Your task to perform on an android device: Go to Amazon Image 0: 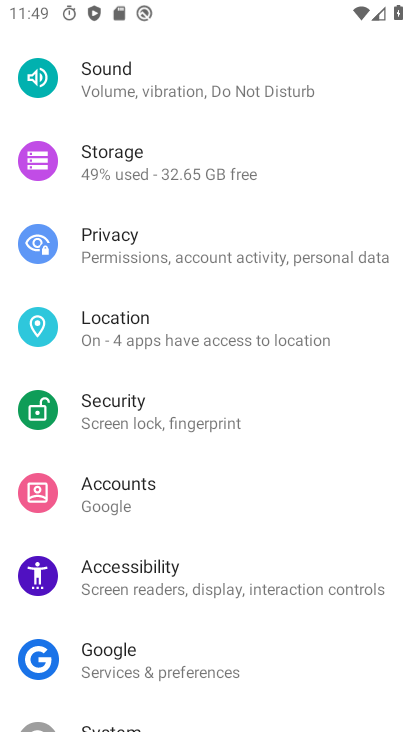
Step 0: press home button
Your task to perform on an android device: Go to Amazon Image 1: 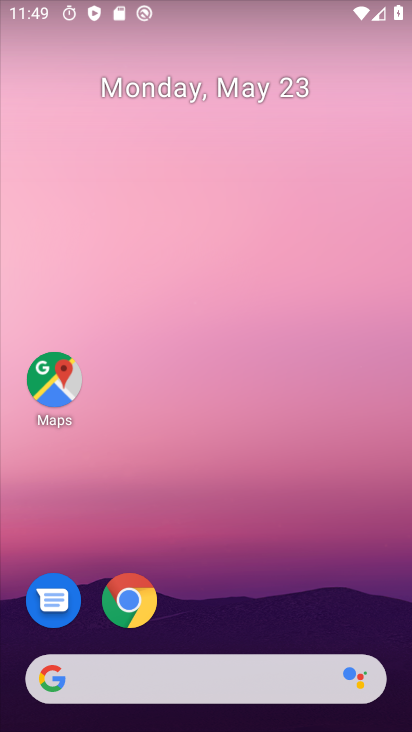
Step 1: click (134, 600)
Your task to perform on an android device: Go to Amazon Image 2: 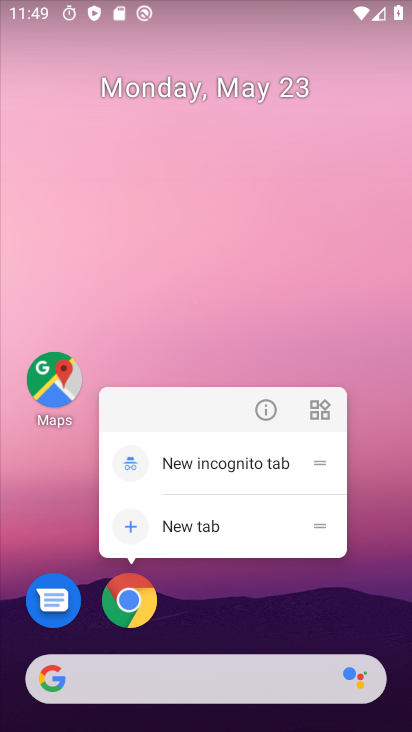
Step 2: click (127, 606)
Your task to perform on an android device: Go to Amazon Image 3: 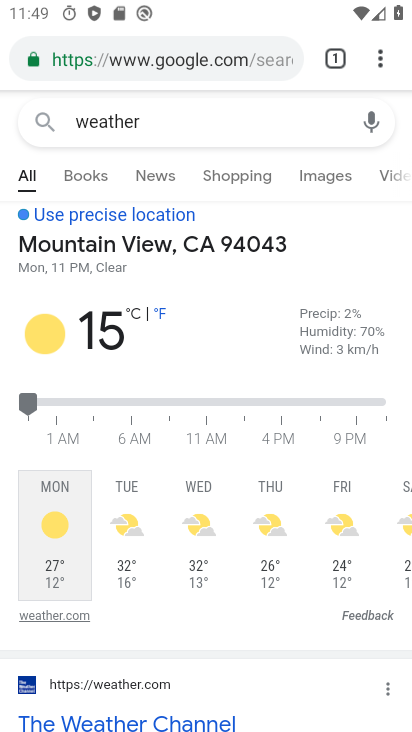
Step 3: click (222, 61)
Your task to perform on an android device: Go to Amazon Image 4: 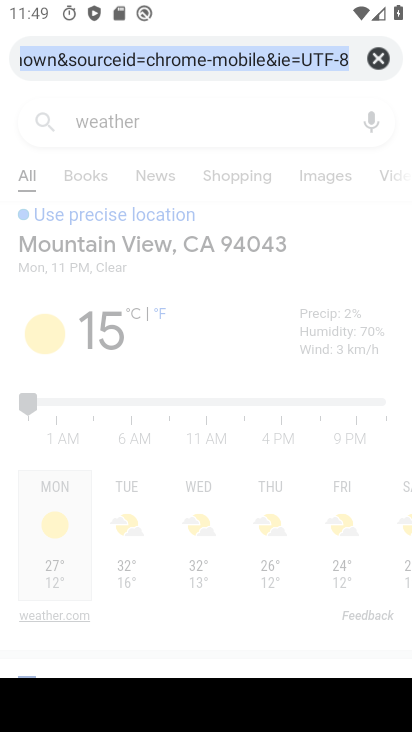
Step 4: type "amazon"
Your task to perform on an android device: Go to Amazon Image 5: 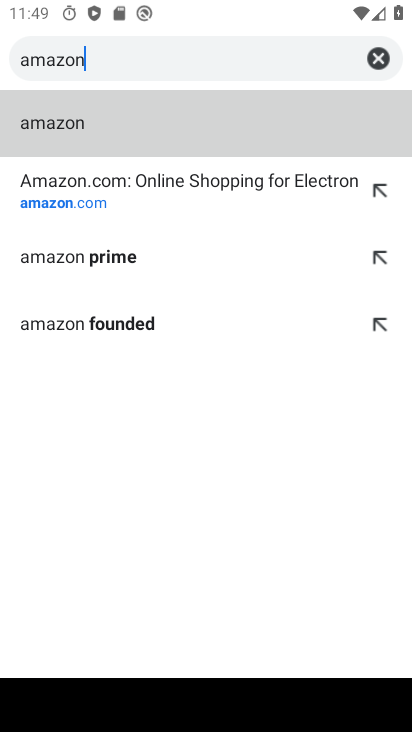
Step 5: click (83, 198)
Your task to perform on an android device: Go to Amazon Image 6: 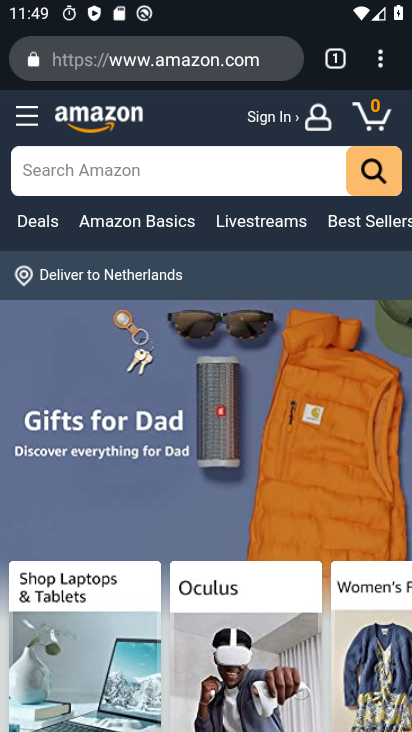
Step 6: task complete